Your task to perform on an android device: Open Wikipedia Image 0: 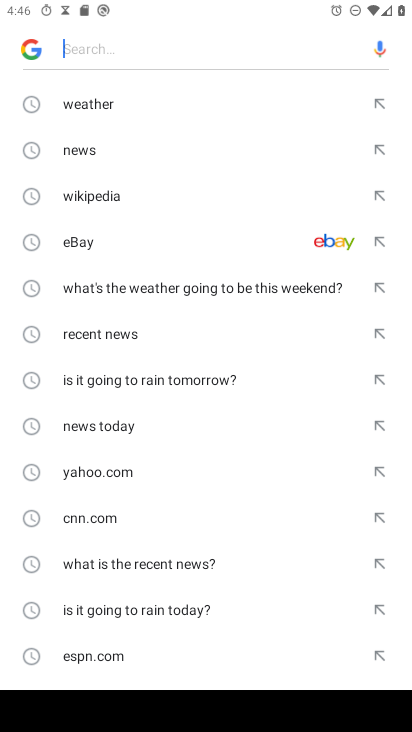
Step 0: press home button
Your task to perform on an android device: Open Wikipedia Image 1: 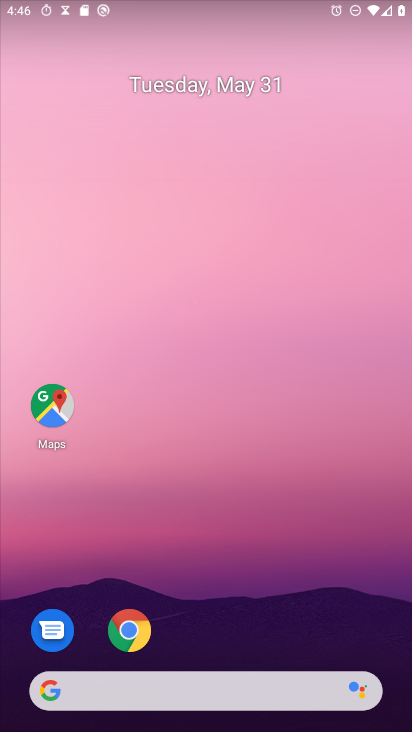
Step 1: drag from (232, 712) to (217, 1)
Your task to perform on an android device: Open Wikipedia Image 2: 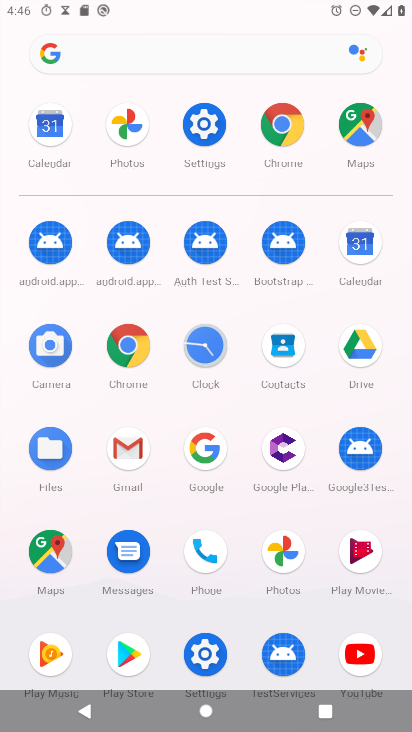
Step 2: click (135, 339)
Your task to perform on an android device: Open Wikipedia Image 3: 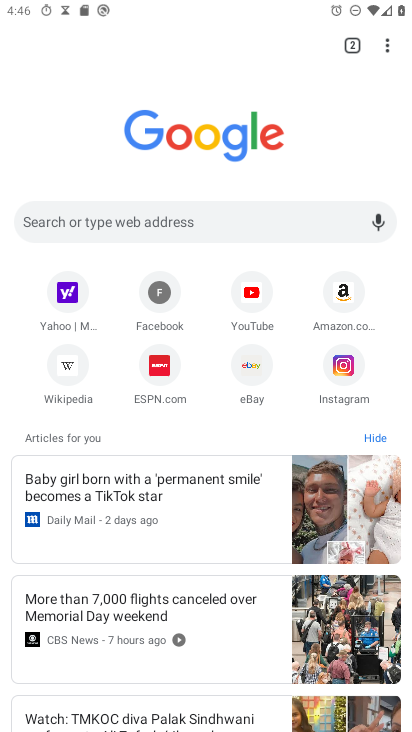
Step 3: click (61, 369)
Your task to perform on an android device: Open Wikipedia Image 4: 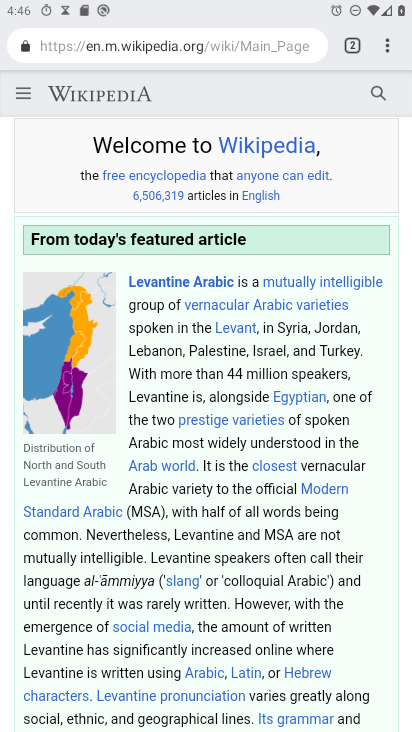
Step 4: task complete